Your task to perform on an android device: Open Google Maps and go to "Timeline" Image 0: 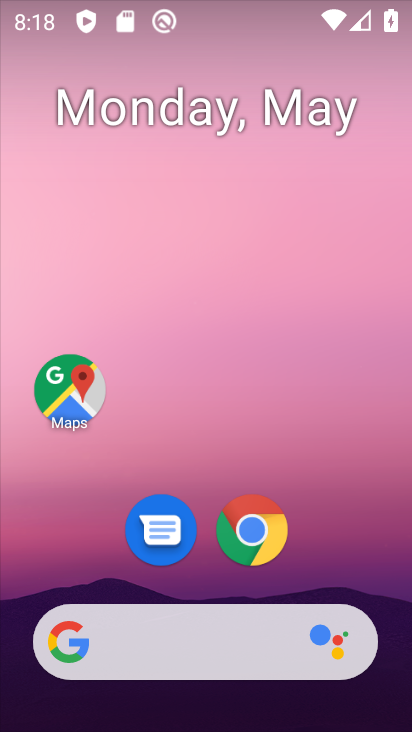
Step 0: click (93, 387)
Your task to perform on an android device: Open Google Maps and go to "Timeline" Image 1: 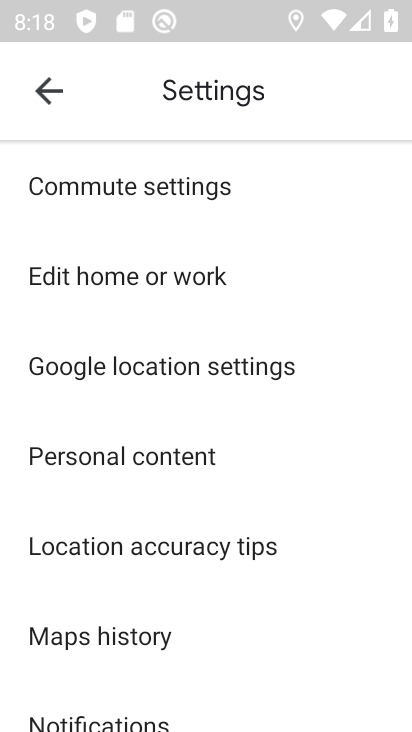
Step 1: click (40, 100)
Your task to perform on an android device: Open Google Maps and go to "Timeline" Image 2: 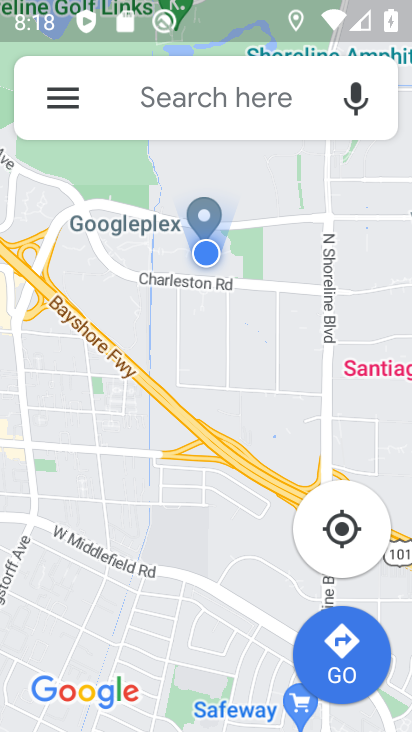
Step 2: click (49, 102)
Your task to perform on an android device: Open Google Maps and go to "Timeline" Image 3: 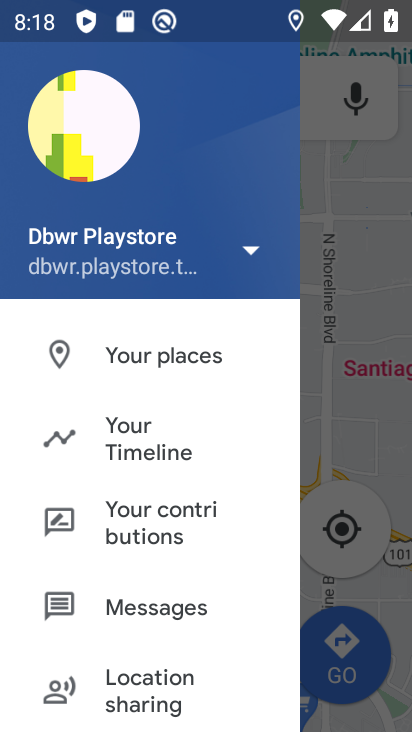
Step 3: click (111, 446)
Your task to perform on an android device: Open Google Maps and go to "Timeline" Image 4: 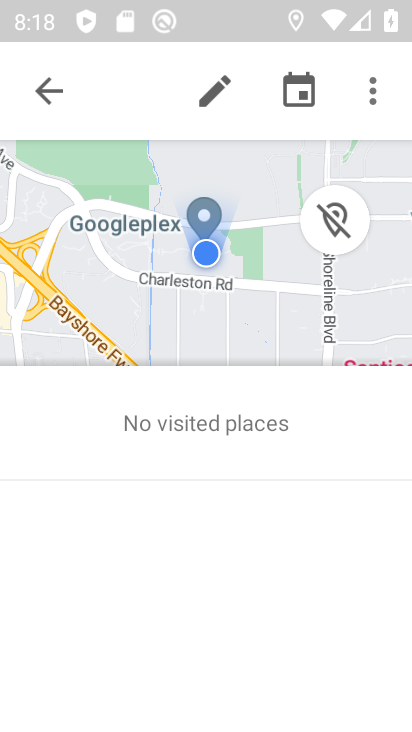
Step 4: task complete